Your task to perform on an android device: Open the stopwatch Image 0: 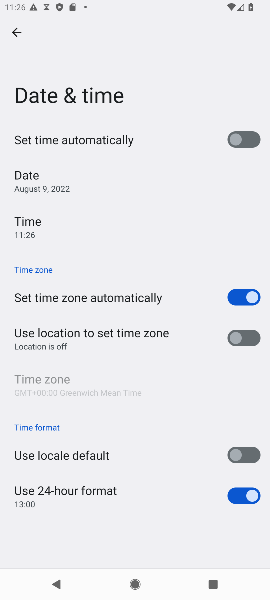
Step 0: press back button
Your task to perform on an android device: Open the stopwatch Image 1: 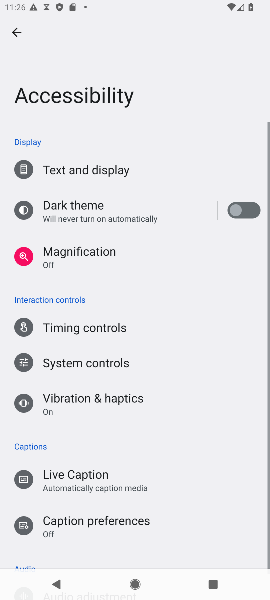
Step 1: press home button
Your task to perform on an android device: Open the stopwatch Image 2: 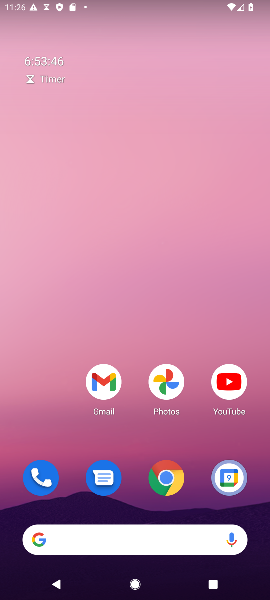
Step 2: drag from (137, 445) to (100, 142)
Your task to perform on an android device: Open the stopwatch Image 3: 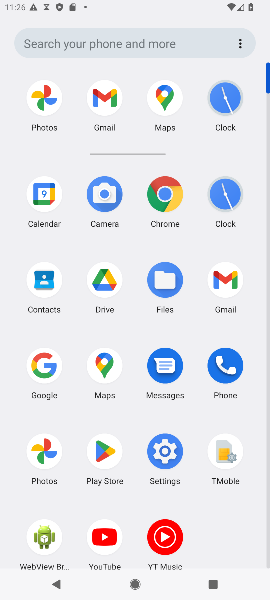
Step 3: click (226, 109)
Your task to perform on an android device: Open the stopwatch Image 4: 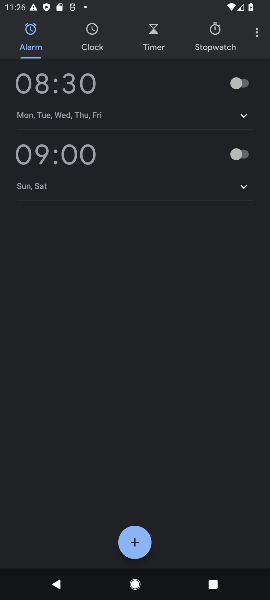
Step 4: click (205, 33)
Your task to perform on an android device: Open the stopwatch Image 5: 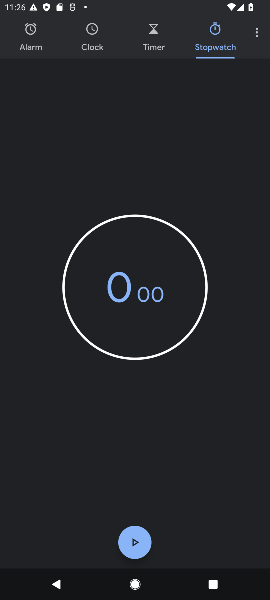
Step 5: task complete